Your task to perform on an android device: change the clock display to analog Image 0: 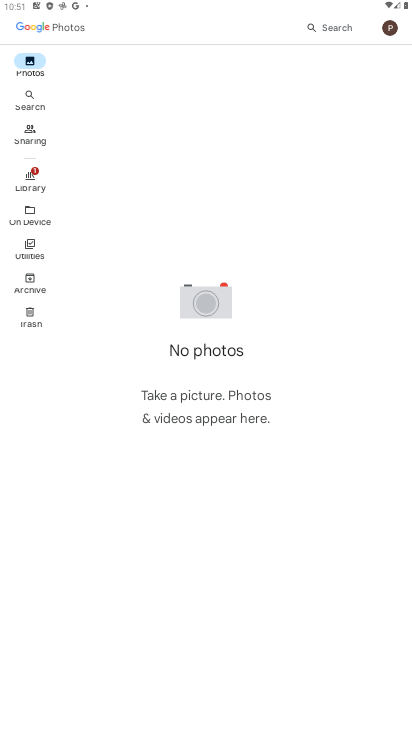
Step 0: press home button
Your task to perform on an android device: change the clock display to analog Image 1: 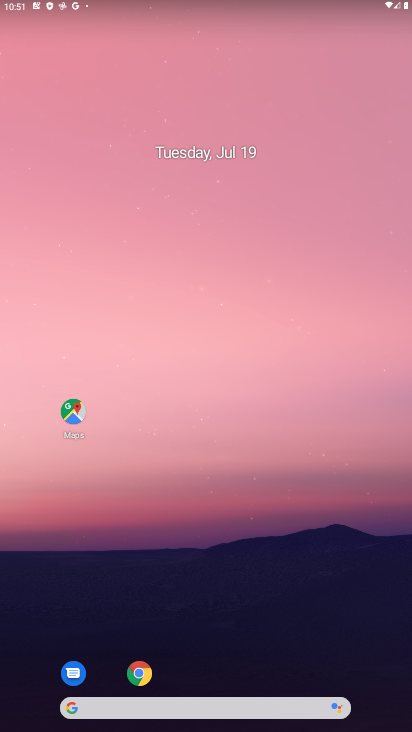
Step 1: drag from (222, 628) to (285, 12)
Your task to perform on an android device: change the clock display to analog Image 2: 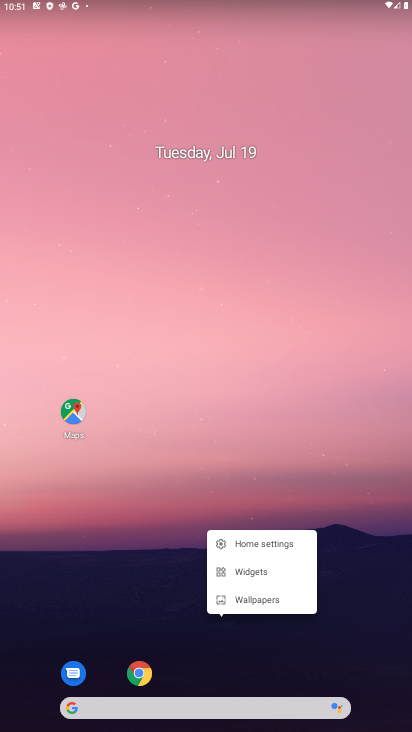
Step 2: click (246, 251)
Your task to perform on an android device: change the clock display to analog Image 3: 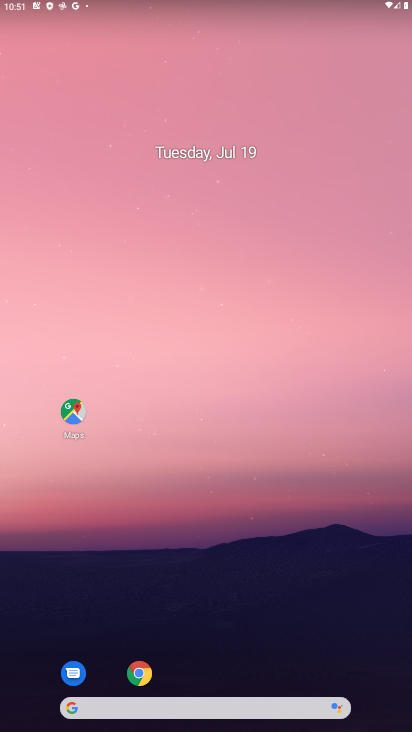
Step 3: drag from (231, 681) to (150, 84)
Your task to perform on an android device: change the clock display to analog Image 4: 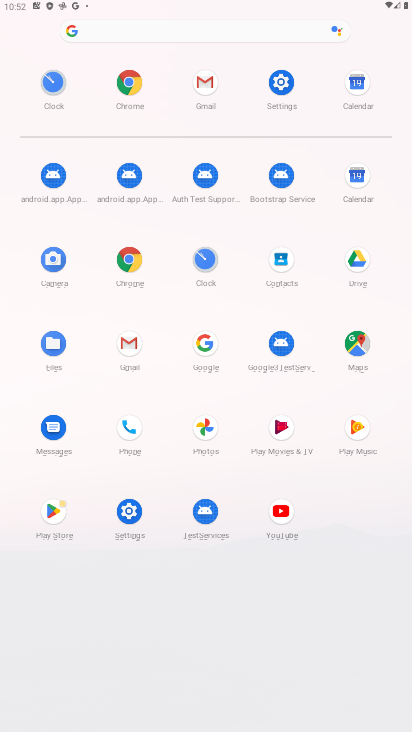
Step 4: click (41, 88)
Your task to perform on an android device: change the clock display to analog Image 5: 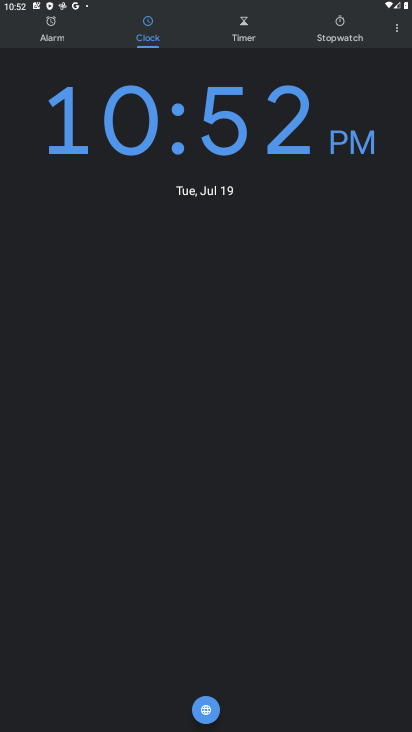
Step 5: click (383, 27)
Your task to perform on an android device: change the clock display to analog Image 6: 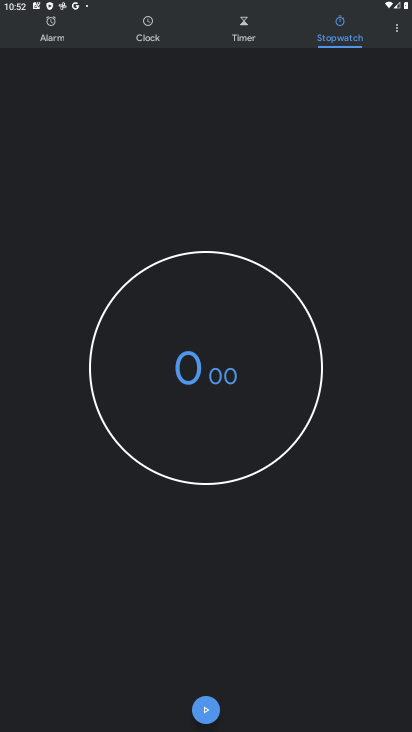
Step 6: click (392, 39)
Your task to perform on an android device: change the clock display to analog Image 7: 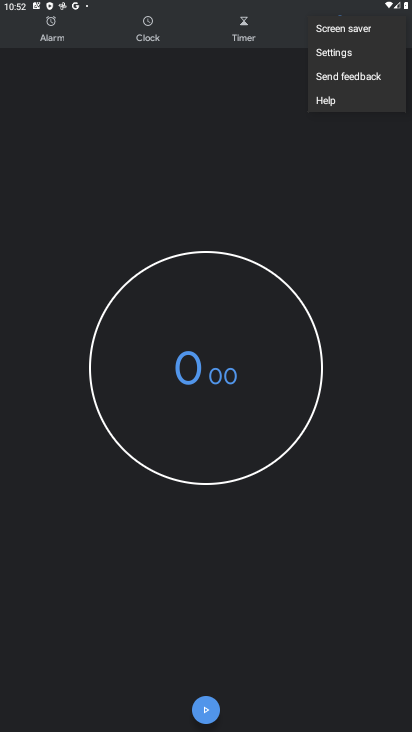
Step 7: click (325, 55)
Your task to perform on an android device: change the clock display to analog Image 8: 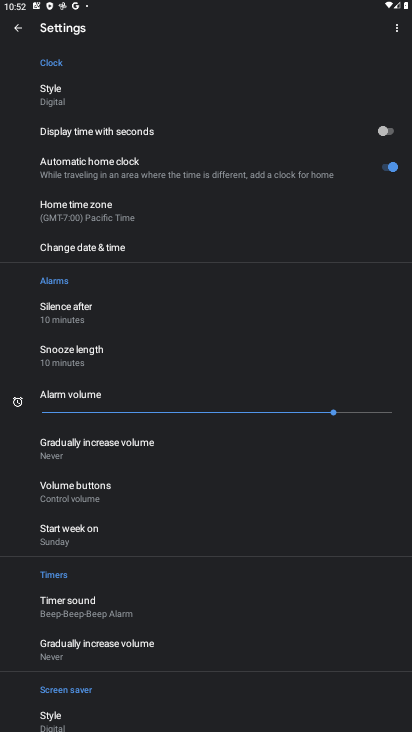
Step 8: click (202, 241)
Your task to perform on an android device: change the clock display to analog Image 9: 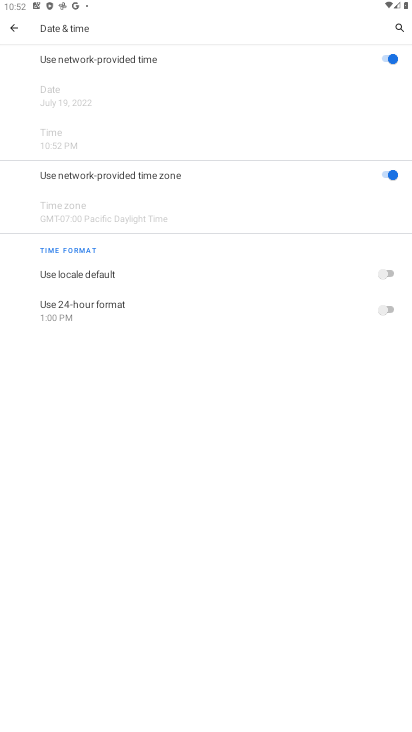
Step 9: task complete